Your task to perform on an android device: Open Wikipedia Image 0: 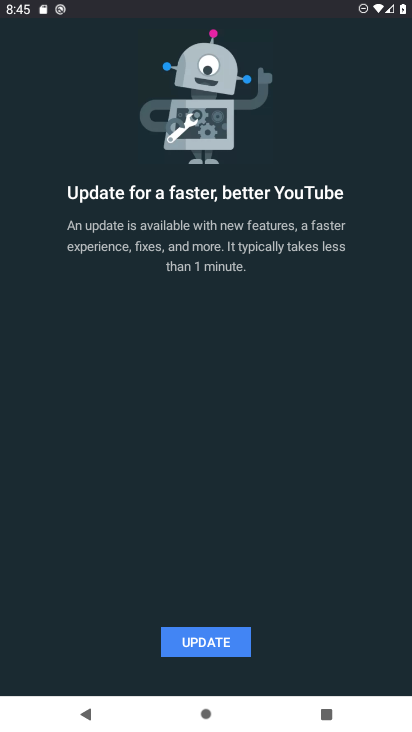
Step 0: press home button
Your task to perform on an android device: Open Wikipedia Image 1: 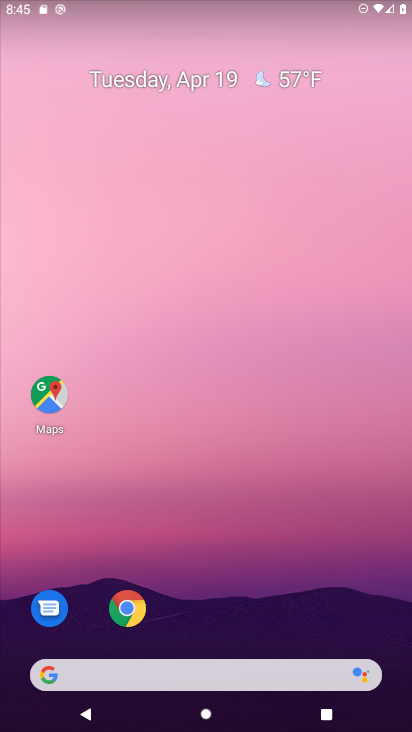
Step 1: drag from (221, 572) to (144, 269)
Your task to perform on an android device: Open Wikipedia Image 2: 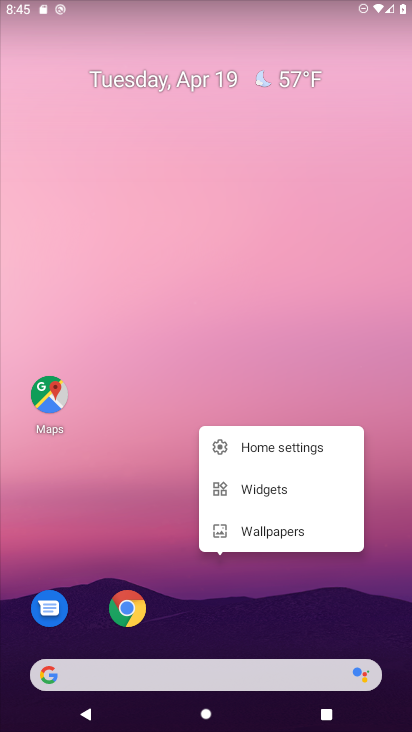
Step 2: click (166, 493)
Your task to perform on an android device: Open Wikipedia Image 3: 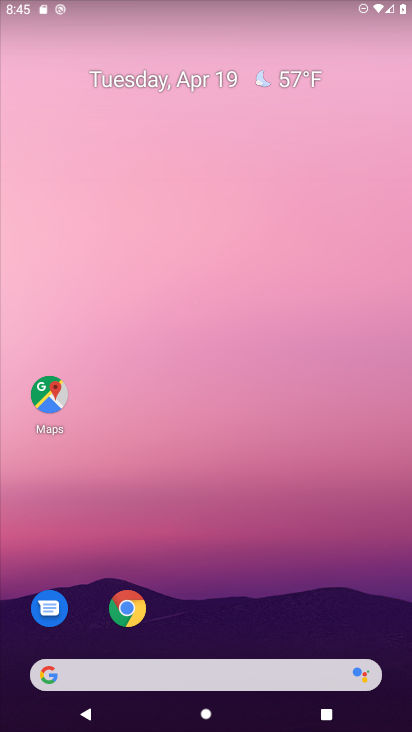
Step 3: click (125, 609)
Your task to perform on an android device: Open Wikipedia Image 4: 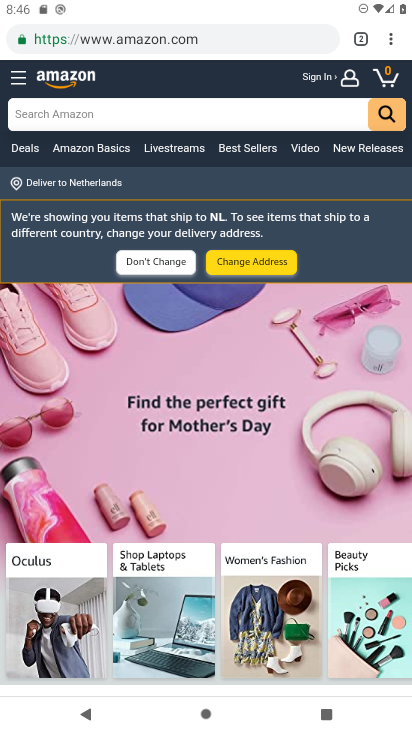
Step 4: press back button
Your task to perform on an android device: Open Wikipedia Image 5: 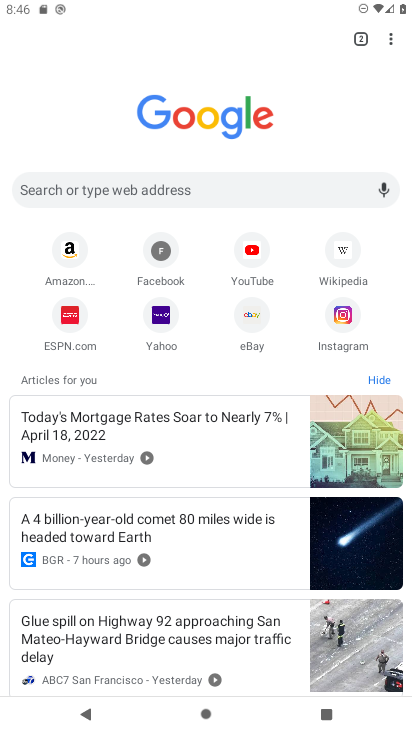
Step 5: click (344, 252)
Your task to perform on an android device: Open Wikipedia Image 6: 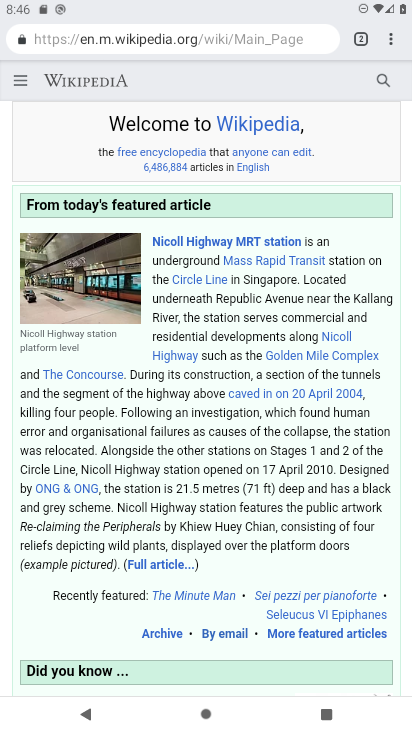
Step 6: task complete